Your task to perform on an android device: Go to Google Image 0: 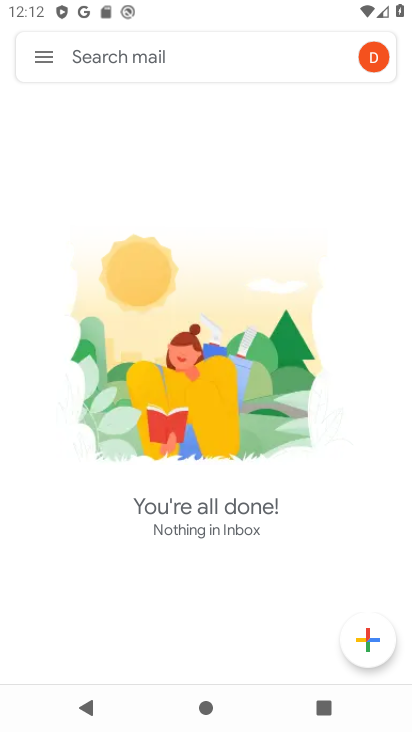
Step 0: press back button
Your task to perform on an android device: Go to Google Image 1: 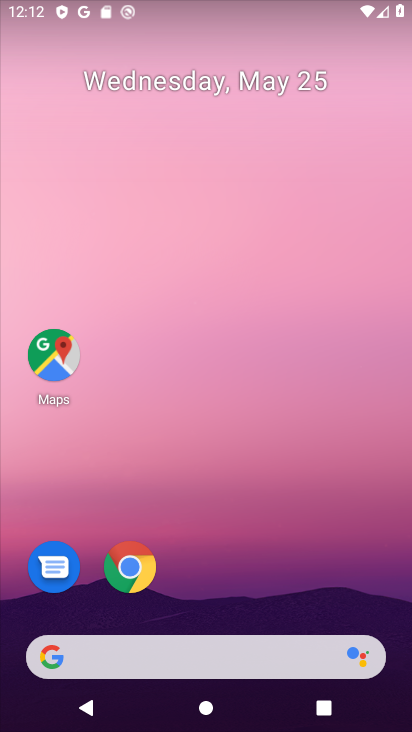
Step 1: drag from (255, 557) to (165, 66)
Your task to perform on an android device: Go to Google Image 2: 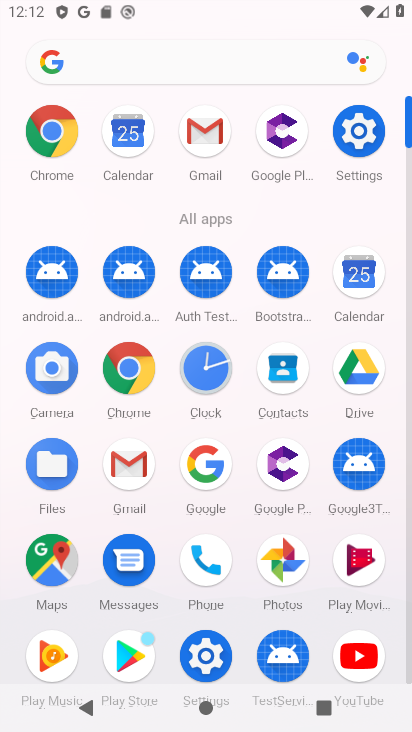
Step 2: click (202, 463)
Your task to perform on an android device: Go to Google Image 3: 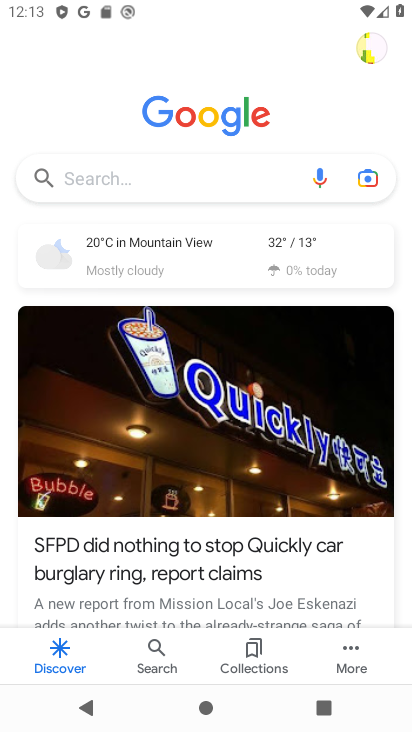
Step 3: task complete